Your task to perform on an android device: add a contact in the contacts app Image 0: 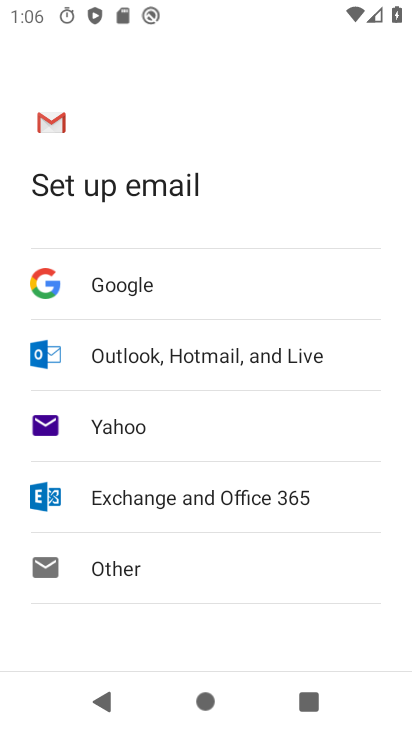
Step 0: press home button
Your task to perform on an android device: add a contact in the contacts app Image 1: 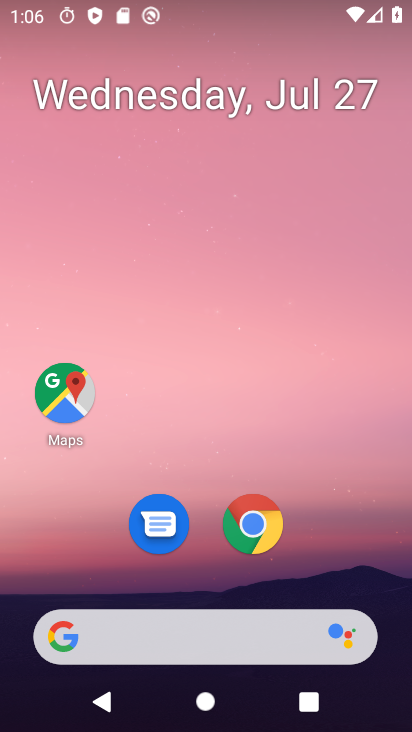
Step 1: drag from (322, 560) to (338, 100)
Your task to perform on an android device: add a contact in the contacts app Image 2: 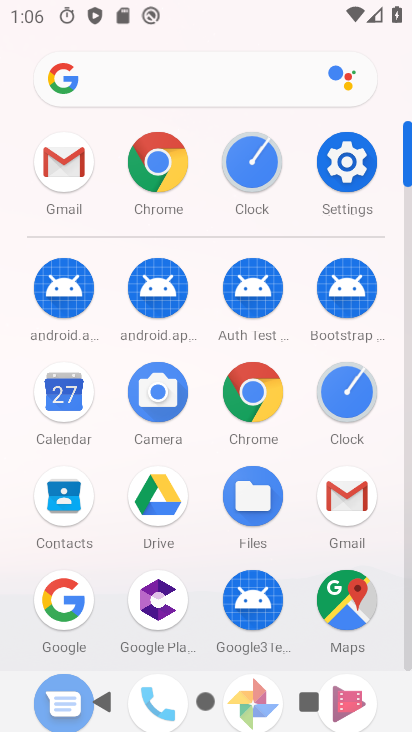
Step 2: click (70, 491)
Your task to perform on an android device: add a contact in the contacts app Image 3: 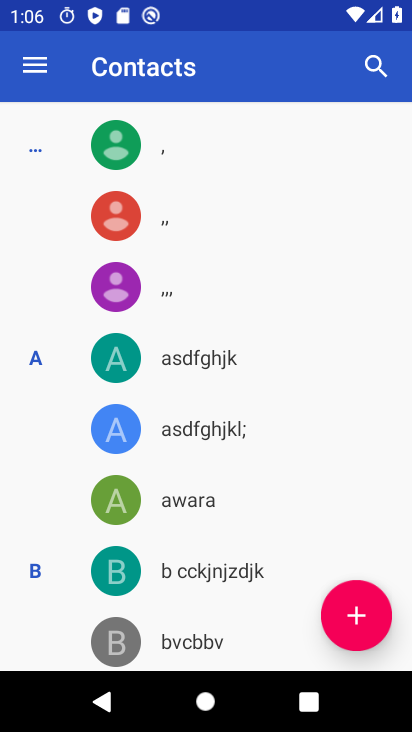
Step 3: click (351, 631)
Your task to perform on an android device: add a contact in the contacts app Image 4: 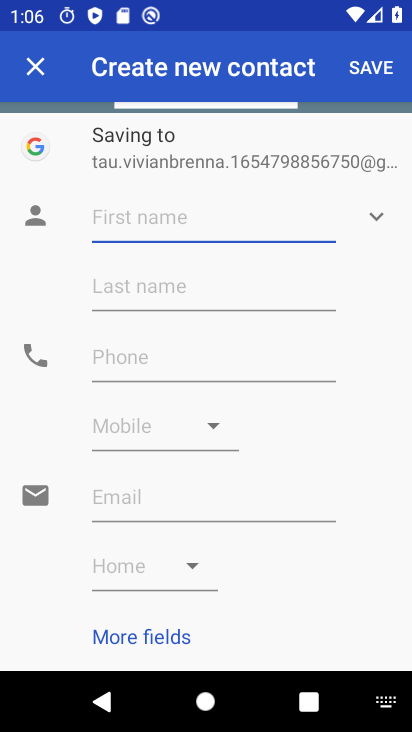
Step 4: type "Abha"
Your task to perform on an android device: add a contact in the contacts app Image 5: 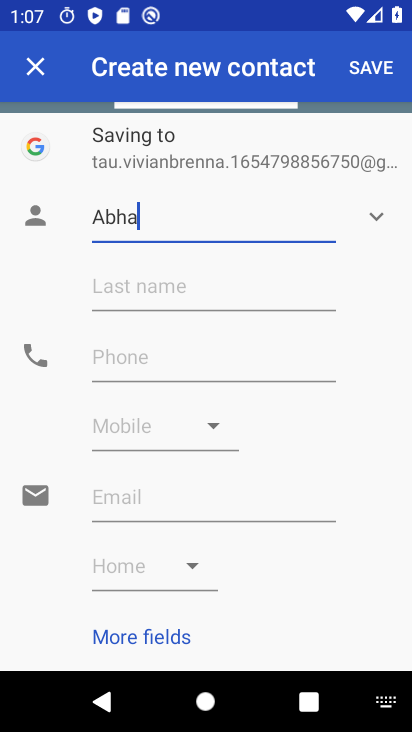
Step 5: click (164, 366)
Your task to perform on an android device: add a contact in the contacts app Image 6: 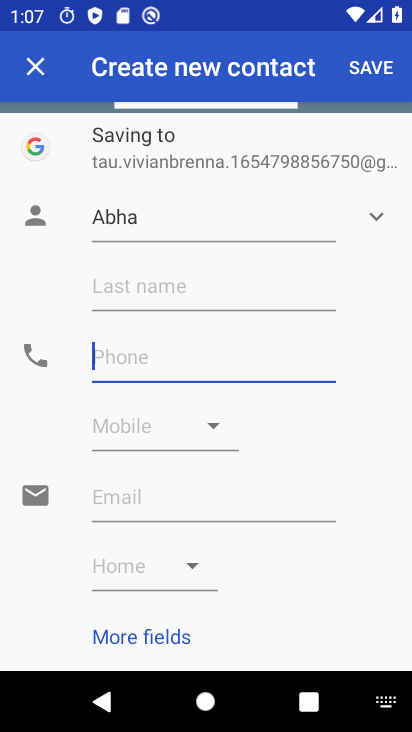
Step 6: type "+9199990000003"
Your task to perform on an android device: add a contact in the contacts app Image 7: 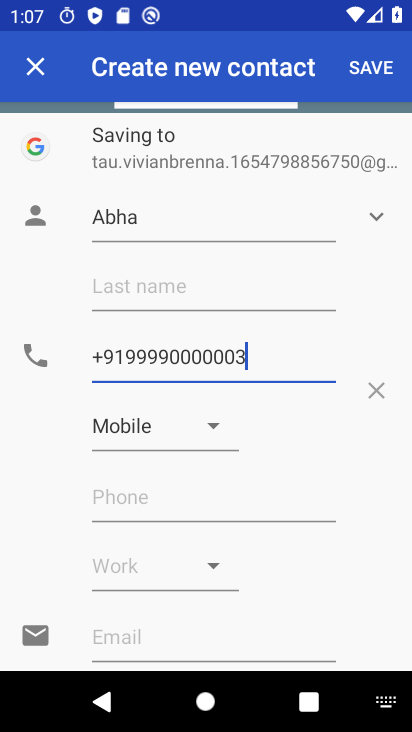
Step 7: click (383, 66)
Your task to perform on an android device: add a contact in the contacts app Image 8: 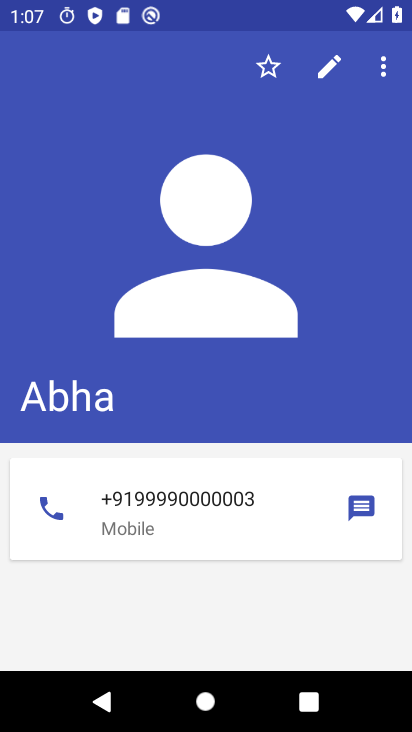
Step 8: task complete